Your task to perform on an android device: Open my contact list Image 0: 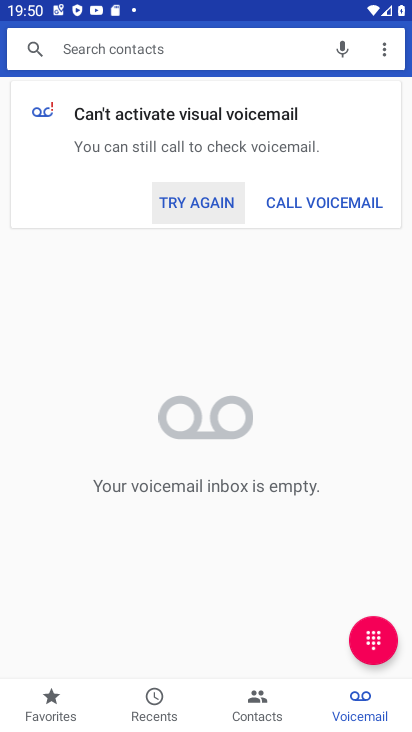
Step 0: click (241, 717)
Your task to perform on an android device: Open my contact list Image 1: 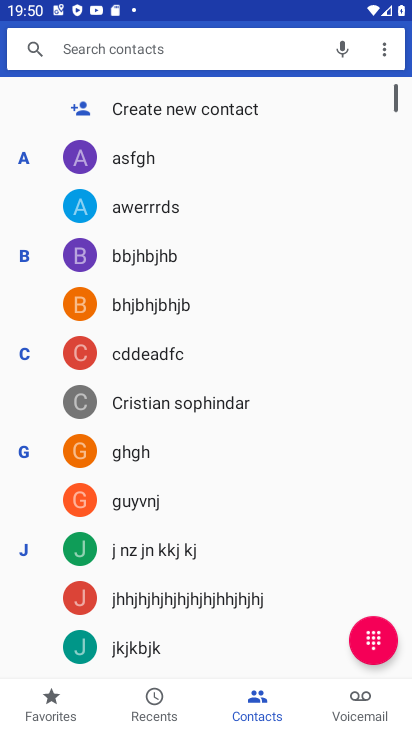
Step 1: task complete